Your task to perform on an android device: Go to ESPN.com Image 0: 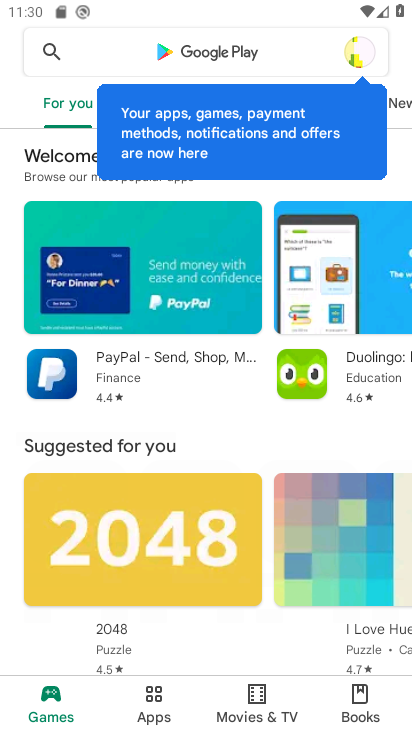
Step 0: press back button
Your task to perform on an android device: Go to ESPN.com Image 1: 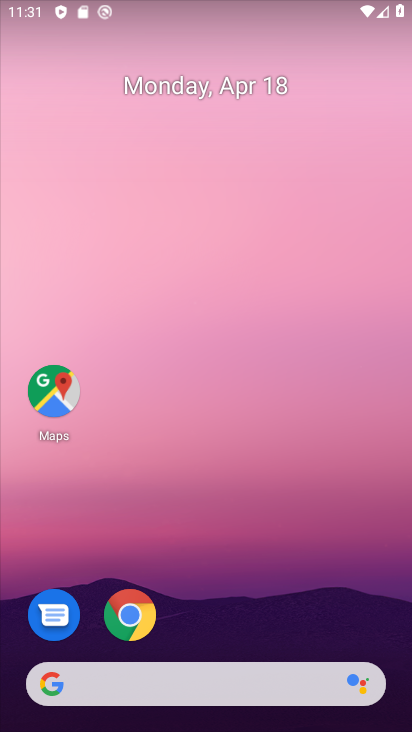
Step 1: click (129, 614)
Your task to perform on an android device: Go to ESPN.com Image 2: 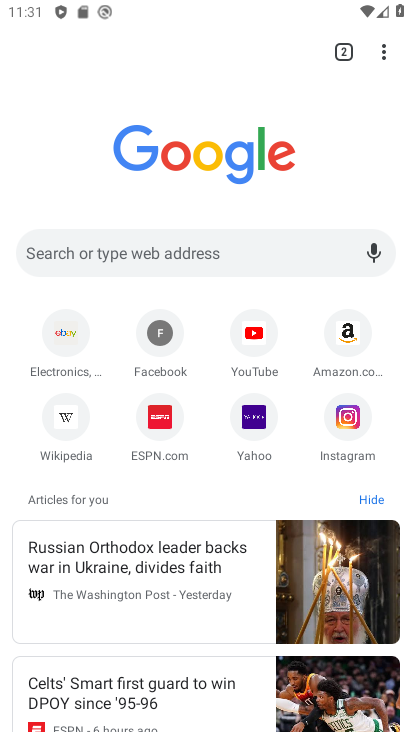
Step 2: click (165, 423)
Your task to perform on an android device: Go to ESPN.com Image 3: 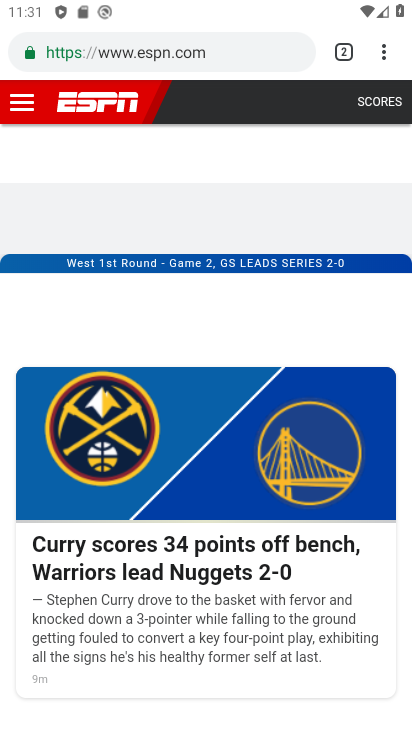
Step 3: task complete